Your task to perform on an android device: change the clock display to show seconds Image 0: 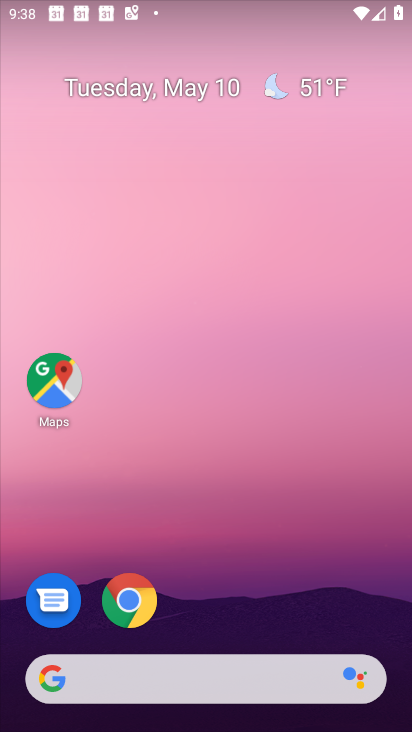
Step 0: drag from (194, 492) to (193, 14)
Your task to perform on an android device: change the clock display to show seconds Image 1: 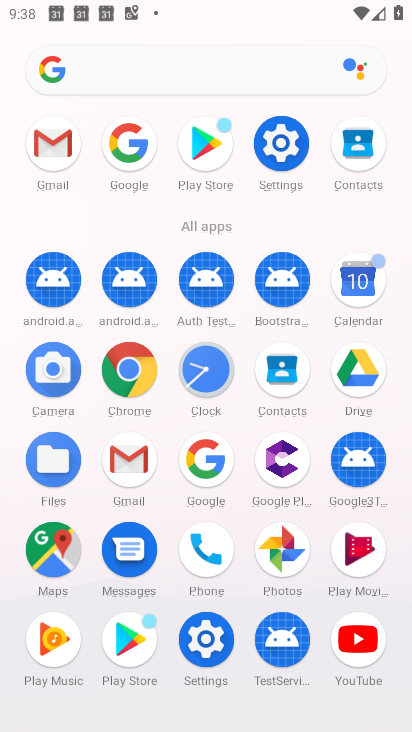
Step 1: click (220, 370)
Your task to perform on an android device: change the clock display to show seconds Image 2: 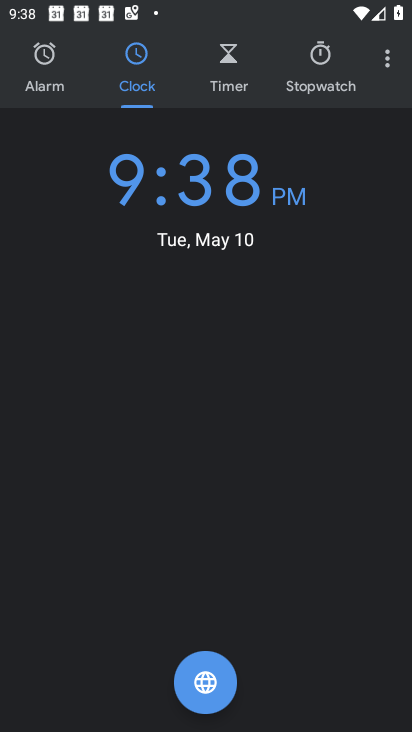
Step 2: click (386, 60)
Your task to perform on an android device: change the clock display to show seconds Image 3: 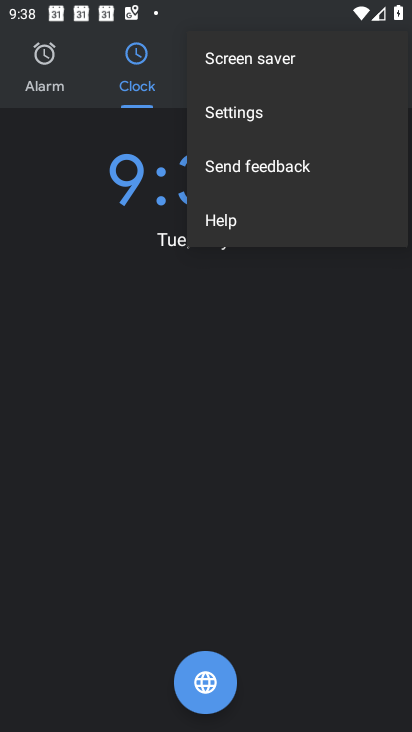
Step 3: click (215, 114)
Your task to perform on an android device: change the clock display to show seconds Image 4: 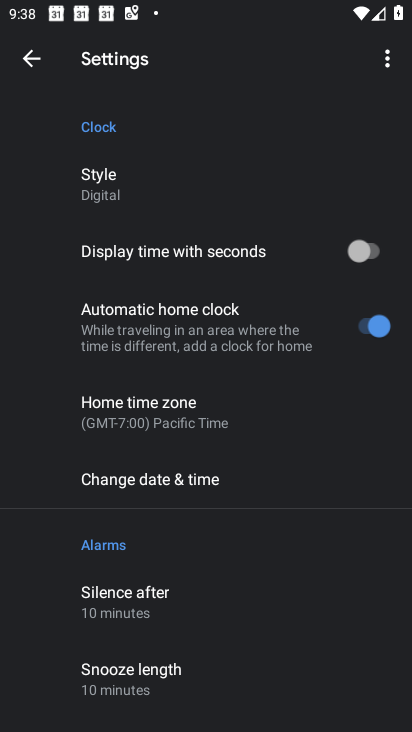
Step 4: click (356, 254)
Your task to perform on an android device: change the clock display to show seconds Image 5: 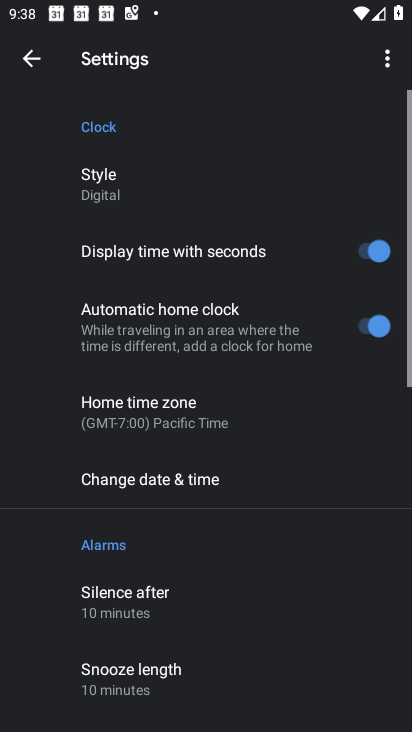
Step 5: task complete